Your task to perform on an android device: allow cookies in the chrome app Image 0: 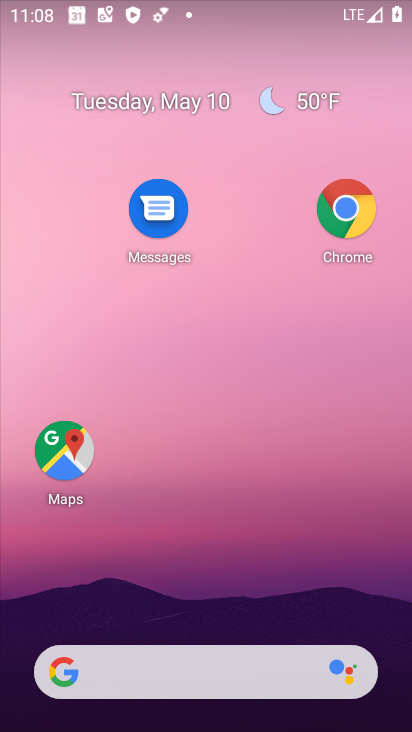
Step 0: drag from (209, 641) to (164, 6)
Your task to perform on an android device: allow cookies in the chrome app Image 1: 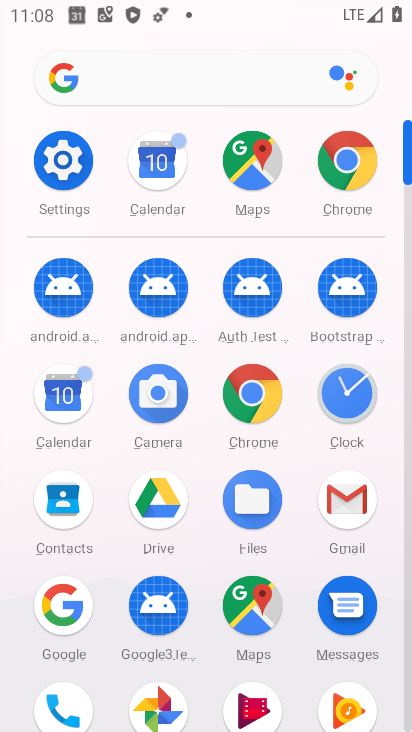
Step 1: click (343, 179)
Your task to perform on an android device: allow cookies in the chrome app Image 2: 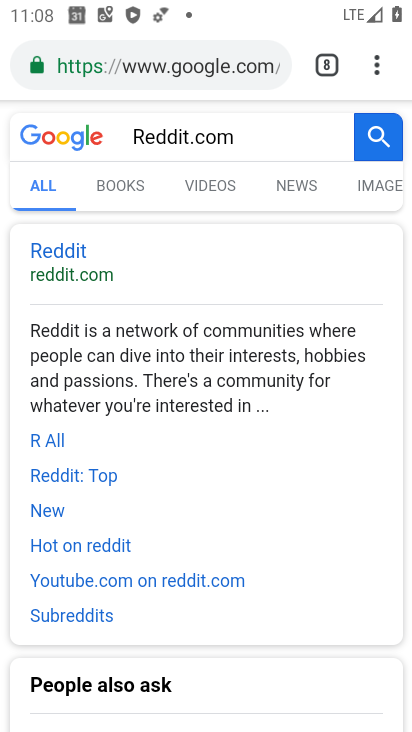
Step 2: click (379, 59)
Your task to perform on an android device: allow cookies in the chrome app Image 3: 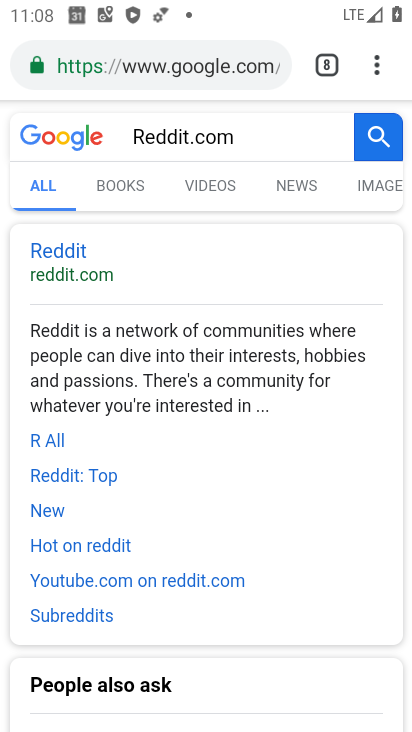
Step 3: drag from (377, 60) to (156, 615)
Your task to perform on an android device: allow cookies in the chrome app Image 4: 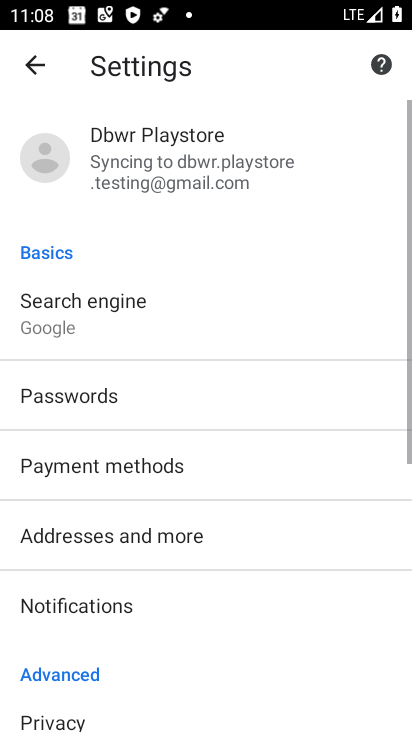
Step 4: drag from (156, 615) to (167, 241)
Your task to perform on an android device: allow cookies in the chrome app Image 5: 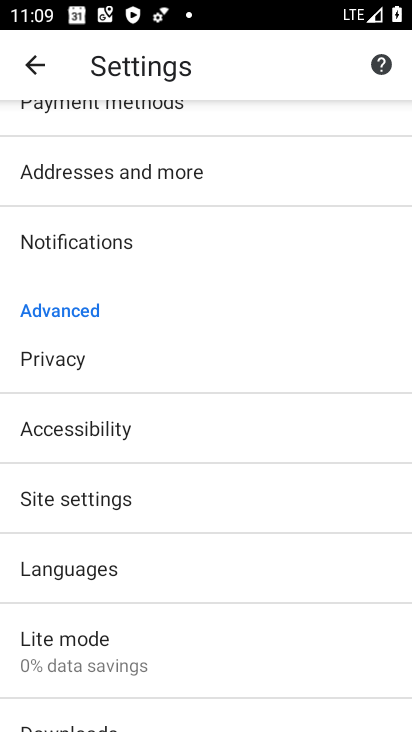
Step 5: drag from (125, 623) to (123, 187)
Your task to perform on an android device: allow cookies in the chrome app Image 6: 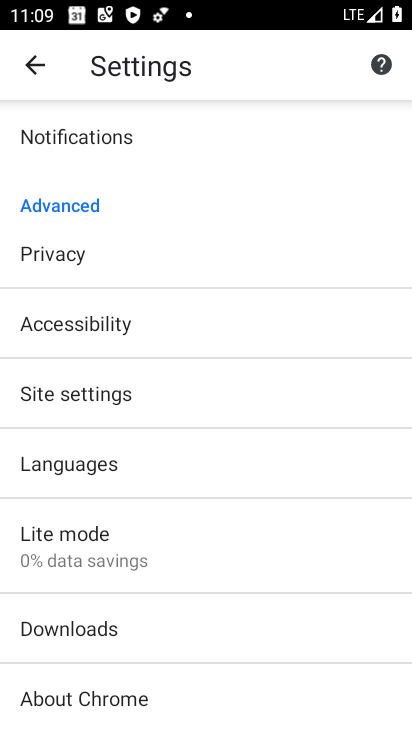
Step 6: click (100, 470)
Your task to perform on an android device: allow cookies in the chrome app Image 7: 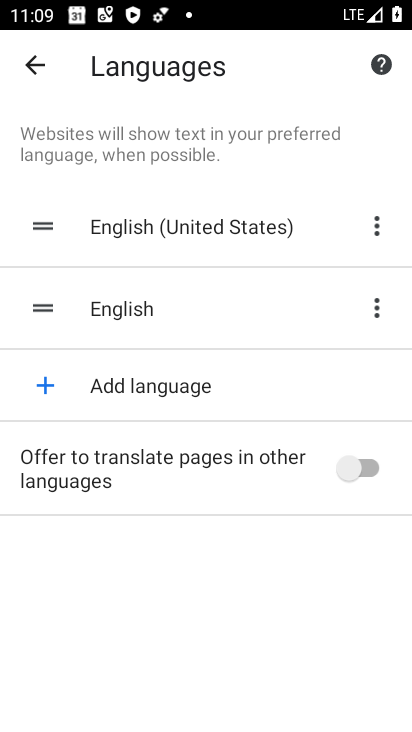
Step 7: click (44, 68)
Your task to perform on an android device: allow cookies in the chrome app Image 8: 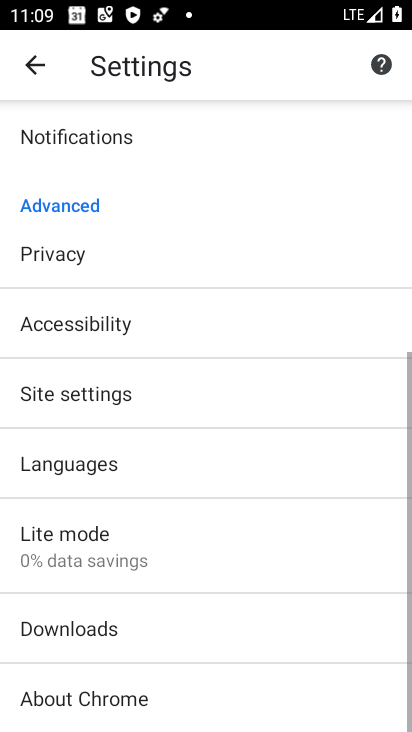
Step 8: click (98, 410)
Your task to perform on an android device: allow cookies in the chrome app Image 9: 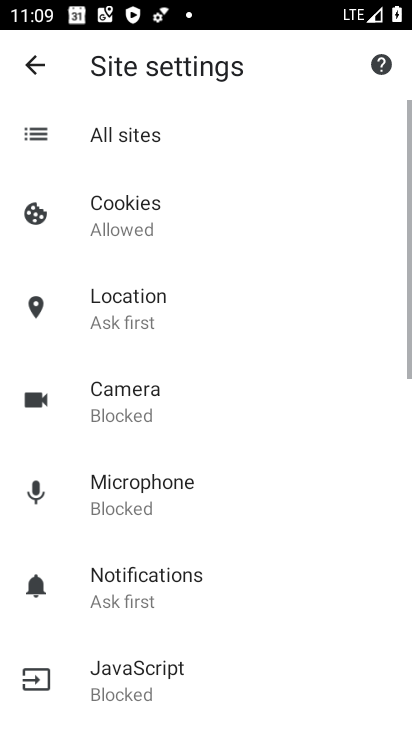
Step 9: drag from (97, 408) to (109, 303)
Your task to perform on an android device: allow cookies in the chrome app Image 10: 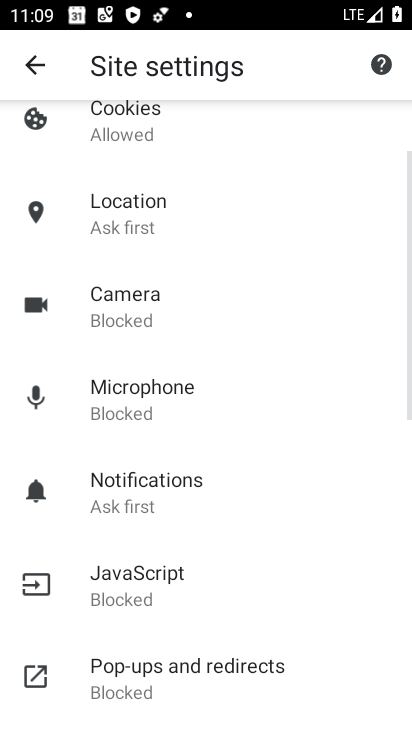
Step 10: click (118, 171)
Your task to perform on an android device: allow cookies in the chrome app Image 11: 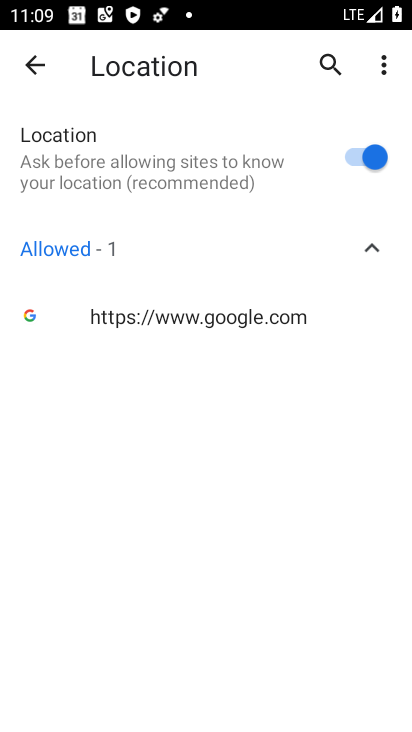
Step 11: click (33, 68)
Your task to perform on an android device: allow cookies in the chrome app Image 12: 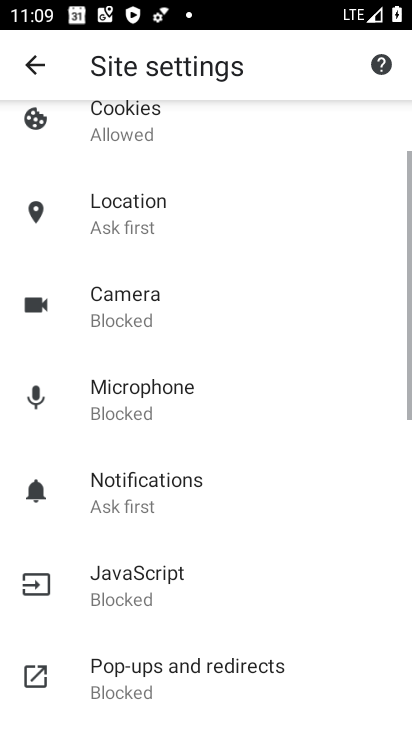
Step 12: click (126, 133)
Your task to perform on an android device: allow cookies in the chrome app Image 13: 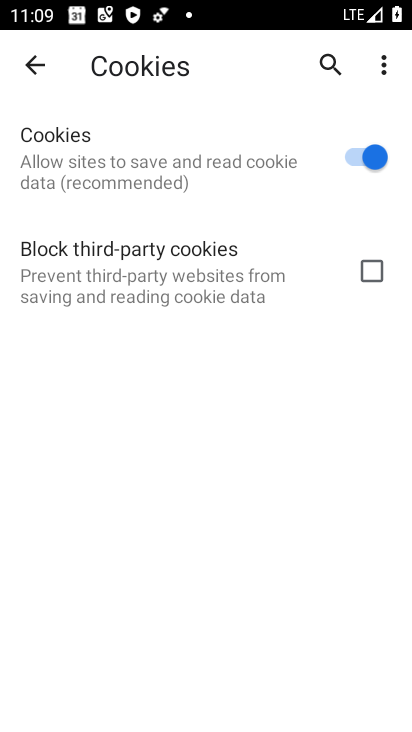
Step 13: task complete